Your task to perform on an android device: show emergency info Image 0: 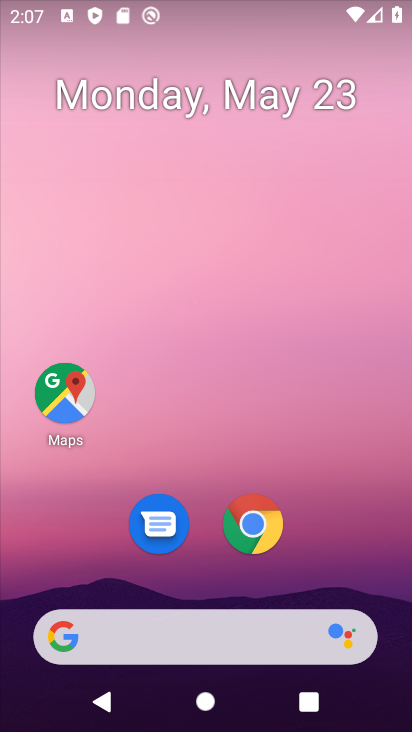
Step 0: drag from (323, 527) to (266, 17)
Your task to perform on an android device: show emergency info Image 1: 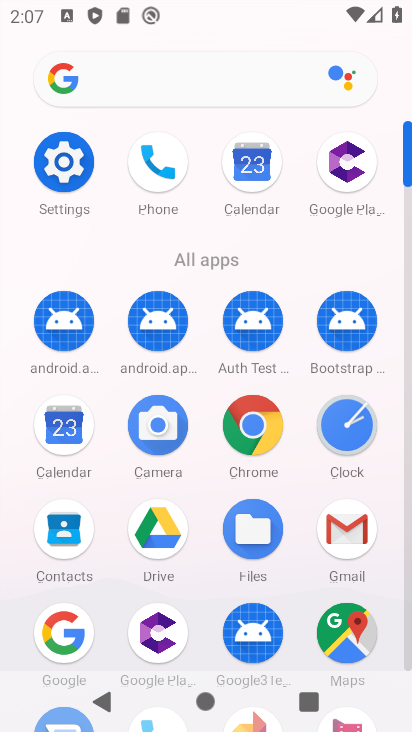
Step 1: click (66, 158)
Your task to perform on an android device: show emergency info Image 2: 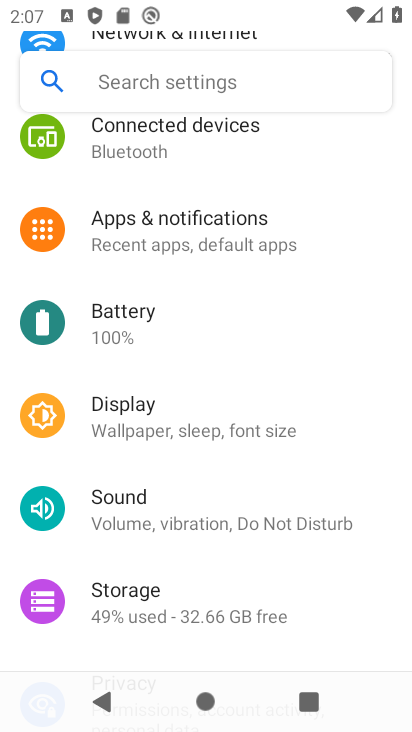
Step 2: drag from (259, 557) to (262, 0)
Your task to perform on an android device: show emergency info Image 3: 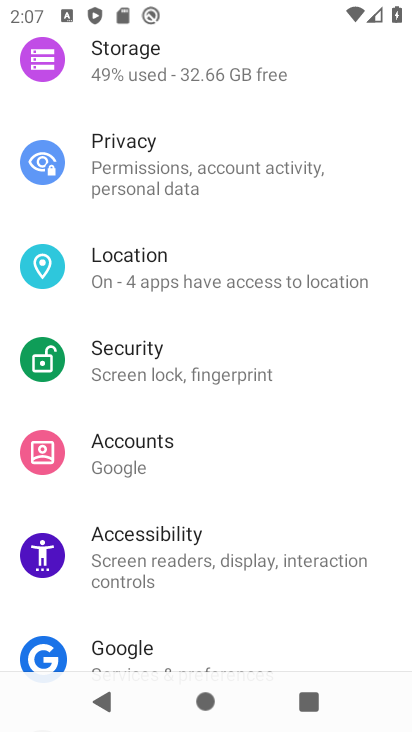
Step 3: drag from (241, 190) to (236, 32)
Your task to perform on an android device: show emergency info Image 4: 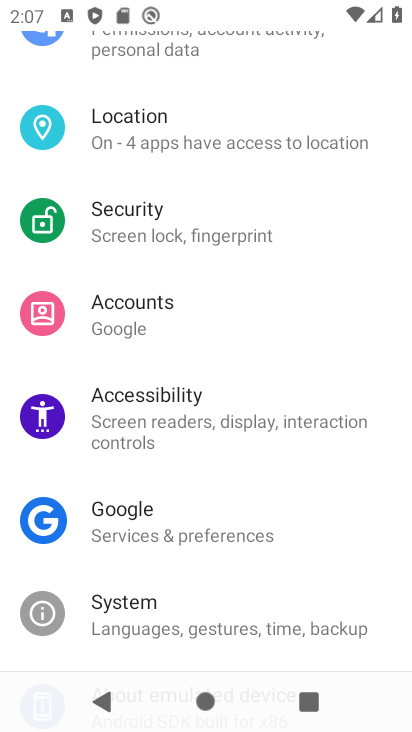
Step 4: drag from (196, 514) to (203, 199)
Your task to perform on an android device: show emergency info Image 5: 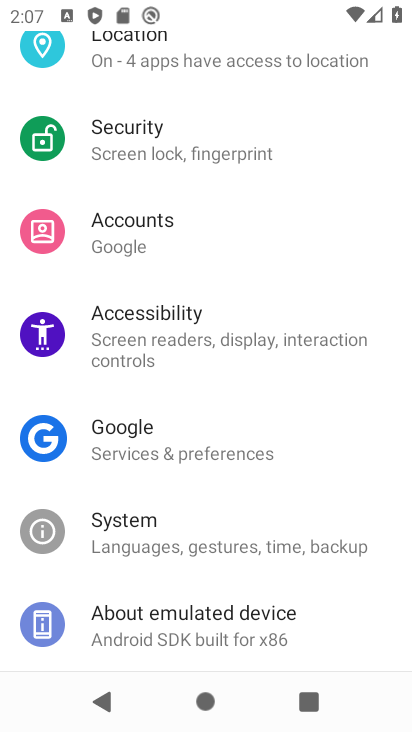
Step 5: click (160, 614)
Your task to perform on an android device: show emergency info Image 6: 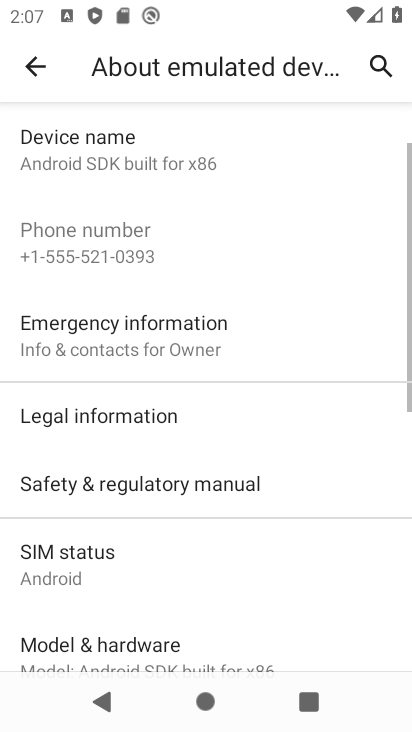
Step 6: click (191, 345)
Your task to perform on an android device: show emergency info Image 7: 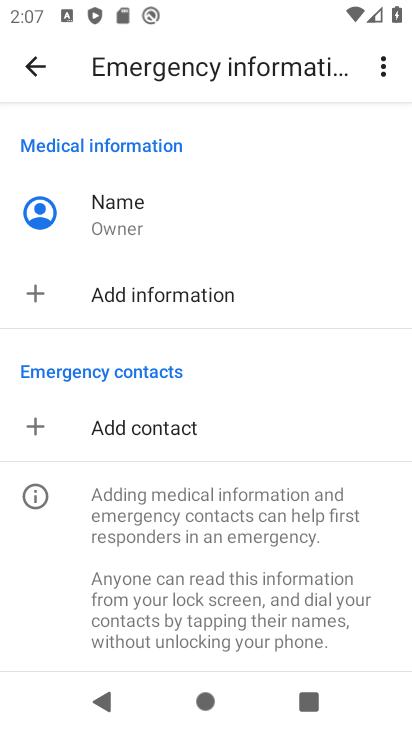
Step 7: task complete